Your task to perform on an android device: turn pop-ups on in chrome Image 0: 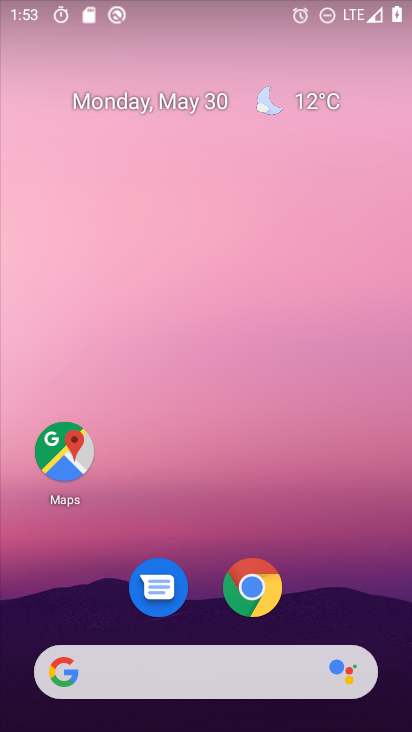
Step 0: click (250, 584)
Your task to perform on an android device: turn pop-ups on in chrome Image 1: 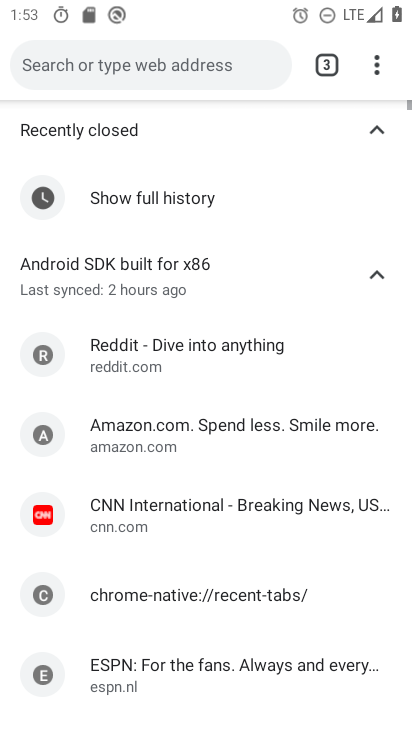
Step 1: drag from (380, 66) to (235, 545)
Your task to perform on an android device: turn pop-ups on in chrome Image 2: 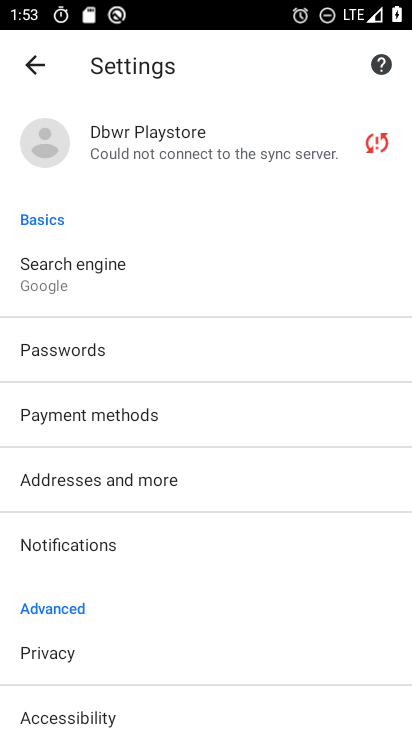
Step 2: drag from (136, 548) to (236, 182)
Your task to perform on an android device: turn pop-ups on in chrome Image 3: 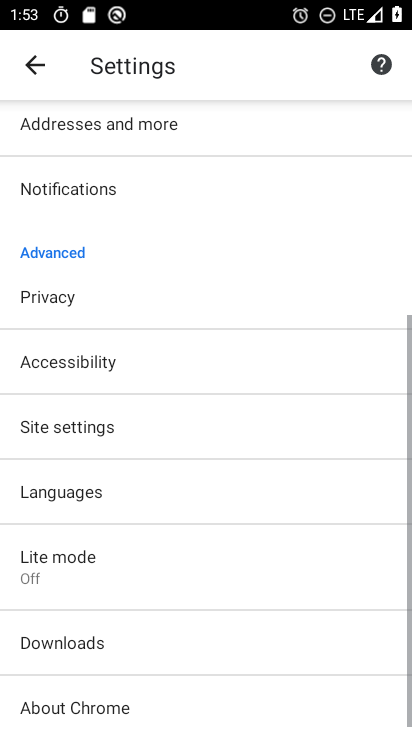
Step 3: click (236, 182)
Your task to perform on an android device: turn pop-ups on in chrome Image 4: 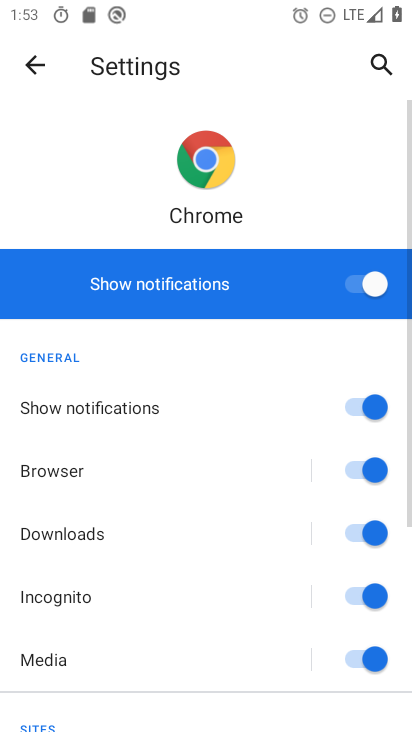
Step 4: click (23, 58)
Your task to perform on an android device: turn pop-ups on in chrome Image 5: 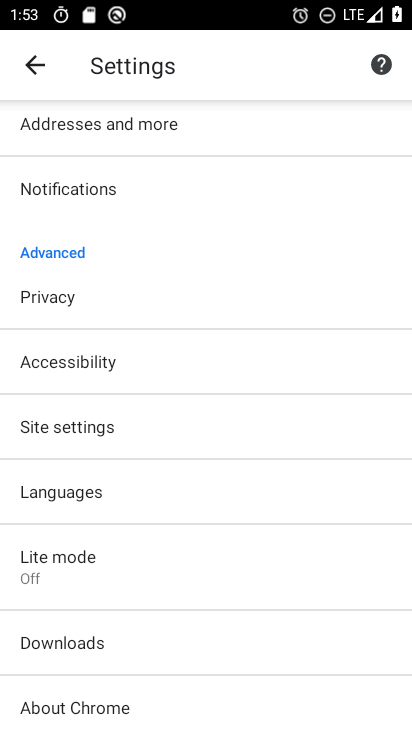
Step 5: click (109, 419)
Your task to perform on an android device: turn pop-ups on in chrome Image 6: 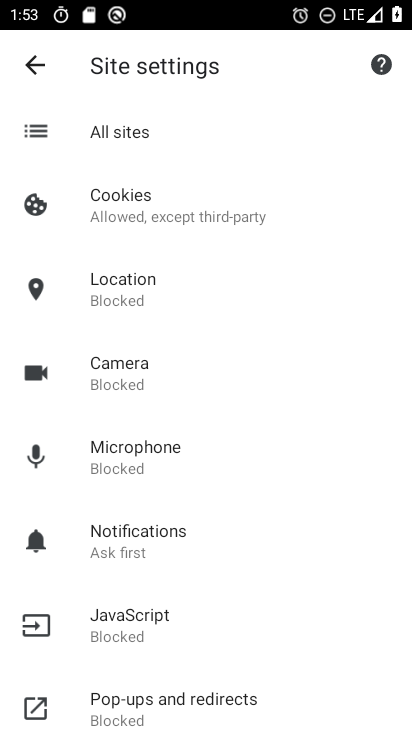
Step 6: click (166, 705)
Your task to perform on an android device: turn pop-ups on in chrome Image 7: 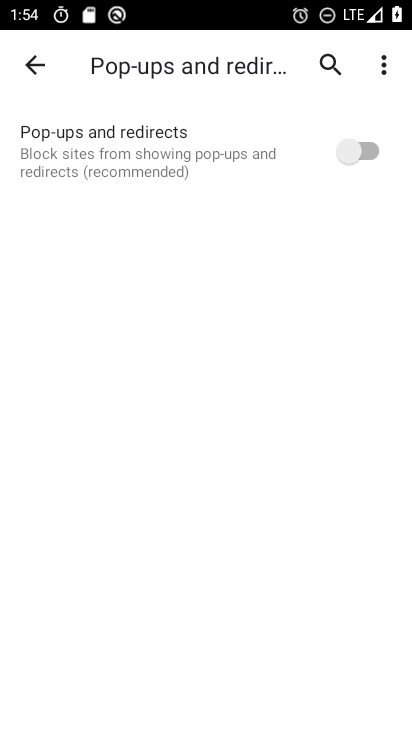
Step 7: click (349, 159)
Your task to perform on an android device: turn pop-ups on in chrome Image 8: 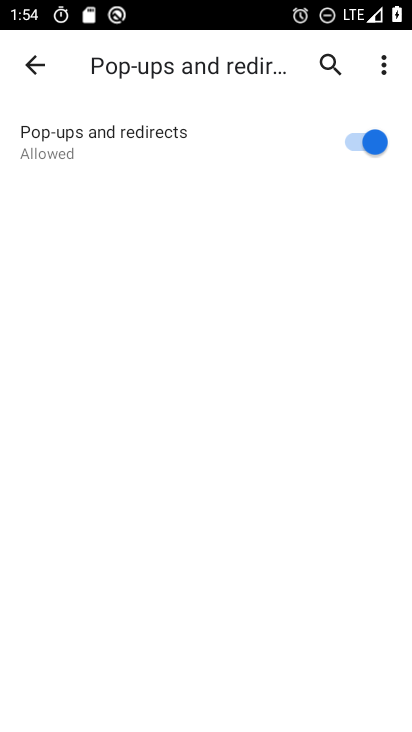
Step 8: task complete